Your task to perform on an android device: show emergency info Image 0: 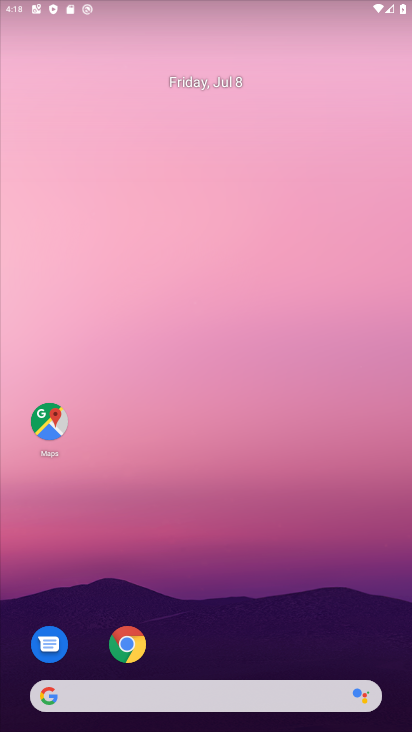
Step 0: drag from (221, 664) to (253, 41)
Your task to perform on an android device: show emergency info Image 1: 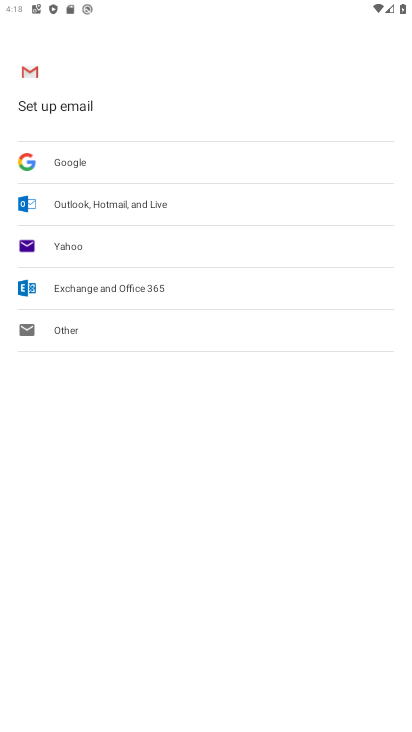
Step 1: press home button
Your task to perform on an android device: show emergency info Image 2: 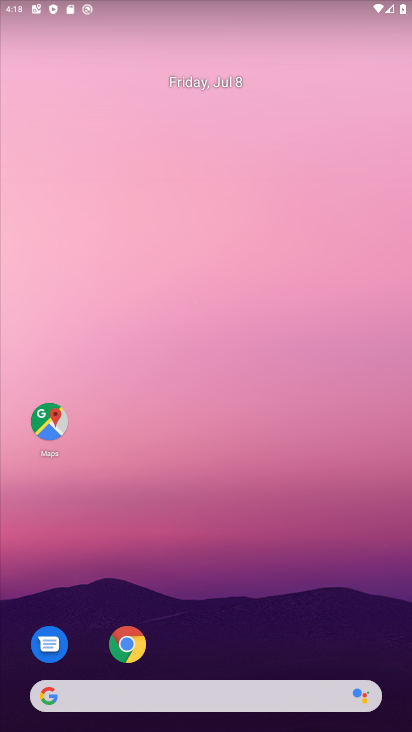
Step 2: drag from (212, 664) to (211, 87)
Your task to perform on an android device: show emergency info Image 3: 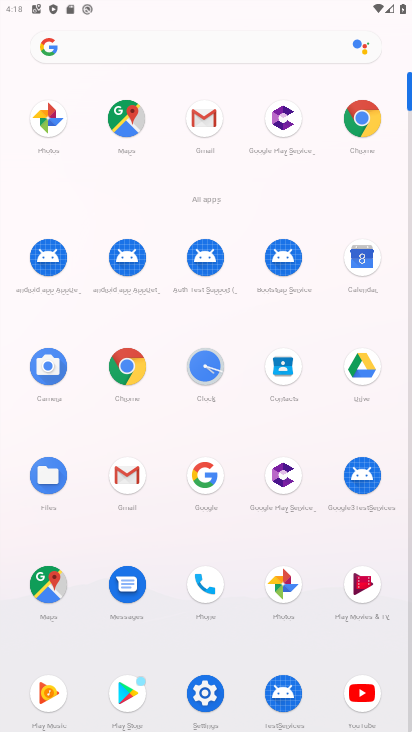
Step 3: click (204, 685)
Your task to perform on an android device: show emergency info Image 4: 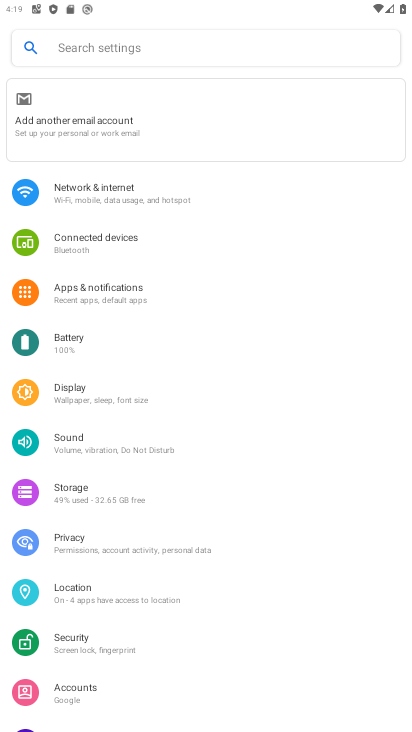
Step 4: drag from (138, 695) to (180, 182)
Your task to perform on an android device: show emergency info Image 5: 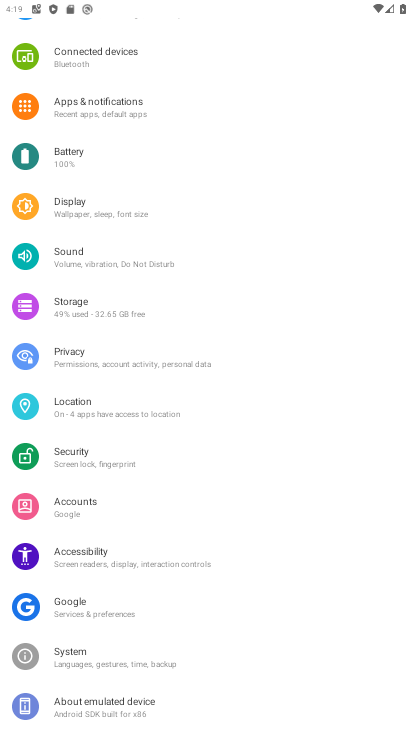
Step 5: click (169, 704)
Your task to perform on an android device: show emergency info Image 6: 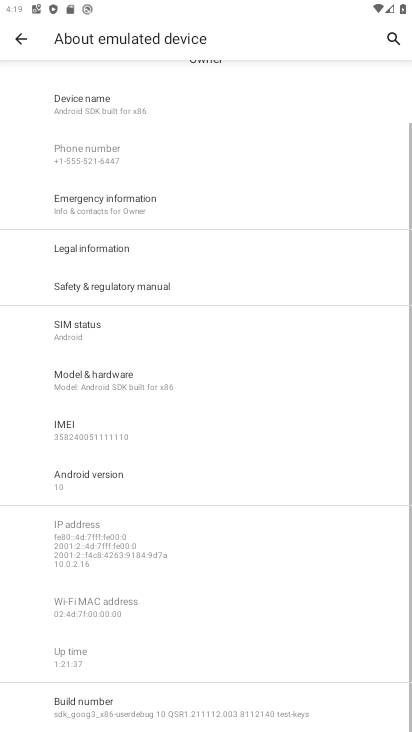
Step 6: click (171, 200)
Your task to perform on an android device: show emergency info Image 7: 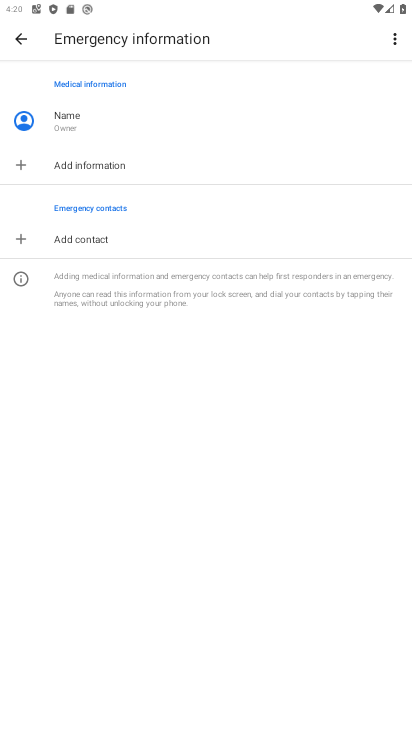
Step 7: task complete